Your task to perform on an android device: turn on improve location accuracy Image 0: 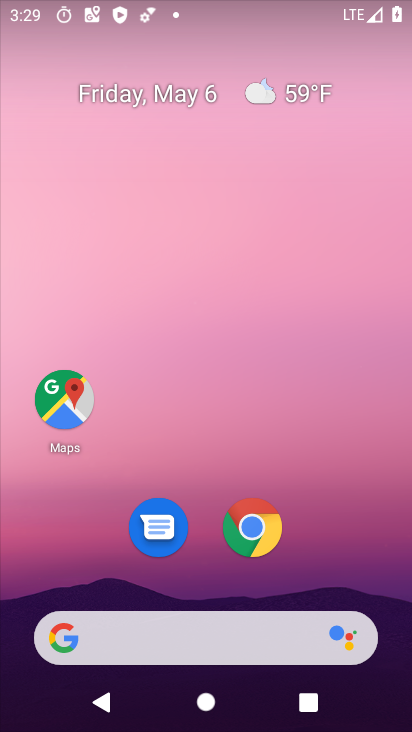
Step 0: drag from (314, 550) to (200, 183)
Your task to perform on an android device: turn on improve location accuracy Image 1: 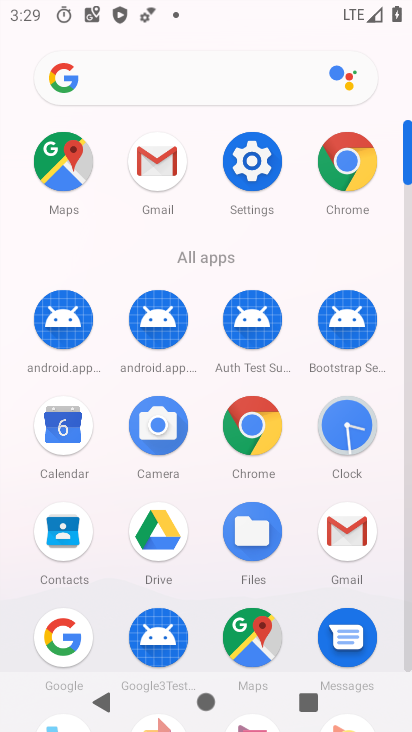
Step 1: click (254, 168)
Your task to perform on an android device: turn on improve location accuracy Image 2: 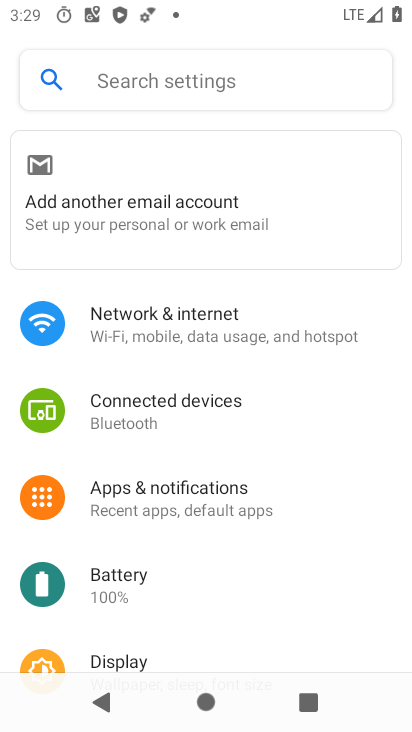
Step 2: drag from (198, 615) to (135, 250)
Your task to perform on an android device: turn on improve location accuracy Image 3: 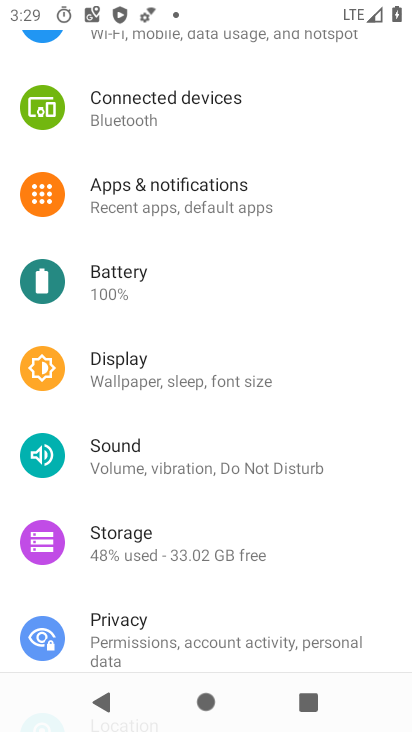
Step 3: drag from (155, 627) to (243, 264)
Your task to perform on an android device: turn on improve location accuracy Image 4: 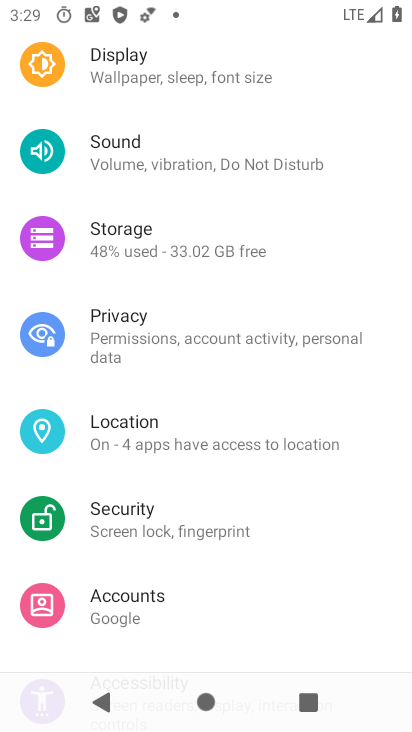
Step 4: click (131, 447)
Your task to perform on an android device: turn on improve location accuracy Image 5: 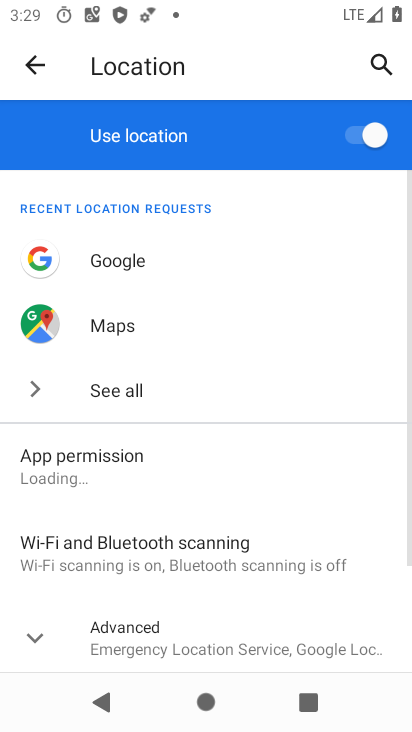
Step 5: drag from (151, 569) to (152, 248)
Your task to perform on an android device: turn on improve location accuracy Image 6: 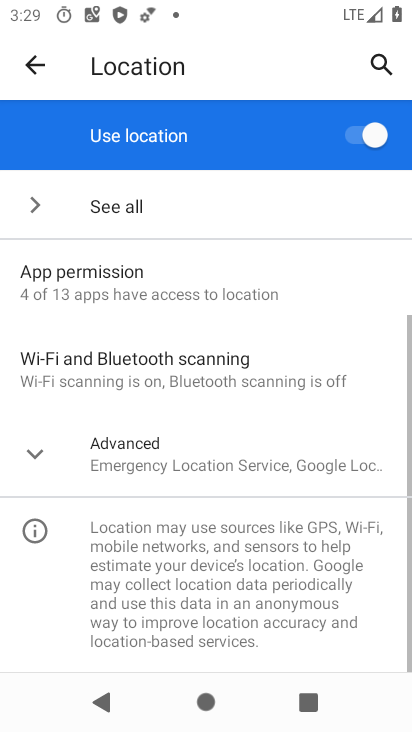
Step 6: click (121, 456)
Your task to perform on an android device: turn on improve location accuracy Image 7: 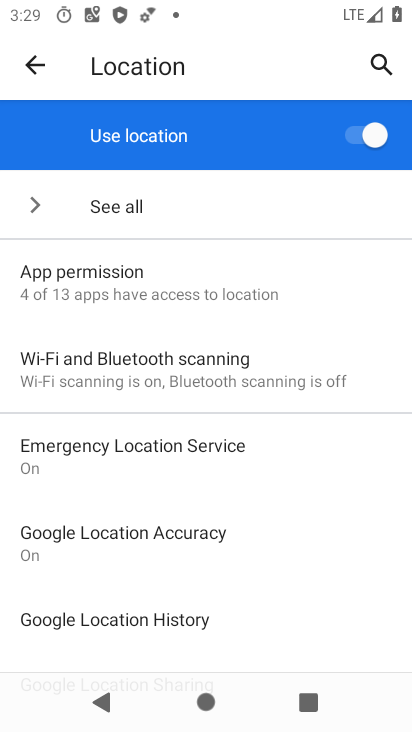
Step 7: click (143, 559)
Your task to perform on an android device: turn on improve location accuracy Image 8: 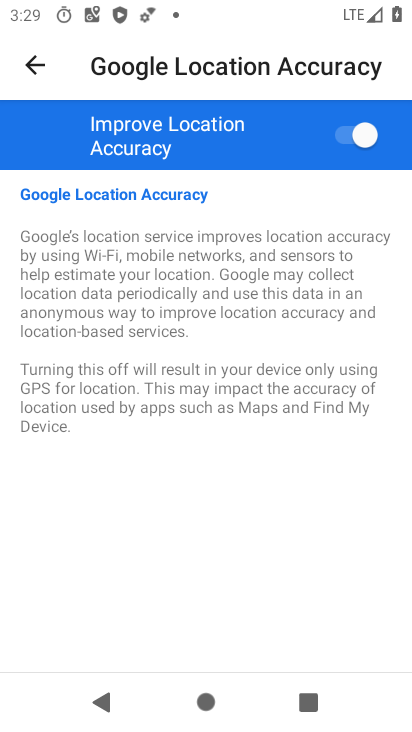
Step 8: task complete